Your task to perform on an android device: toggle pop-ups in chrome Image 0: 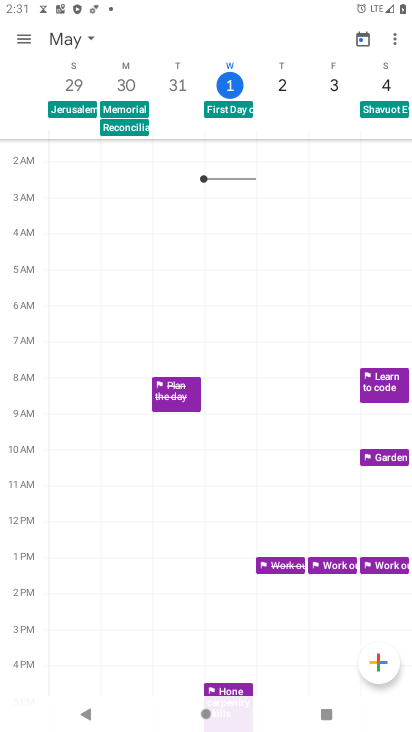
Step 0: press home button
Your task to perform on an android device: toggle pop-ups in chrome Image 1: 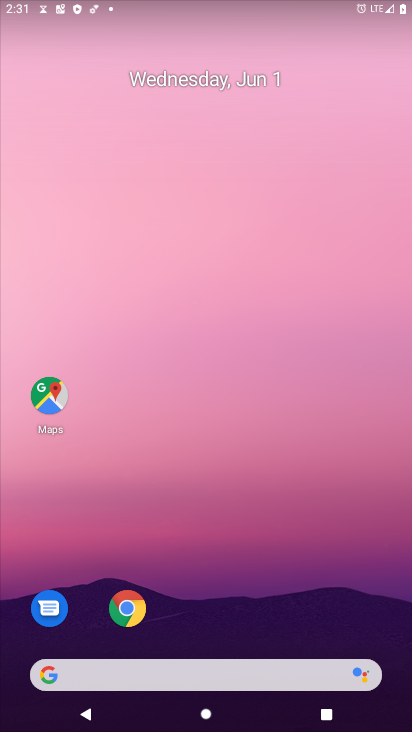
Step 1: click (121, 608)
Your task to perform on an android device: toggle pop-ups in chrome Image 2: 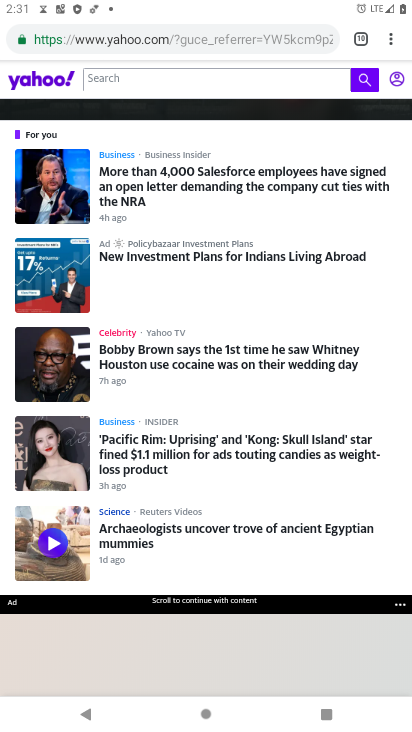
Step 2: click (391, 52)
Your task to perform on an android device: toggle pop-ups in chrome Image 3: 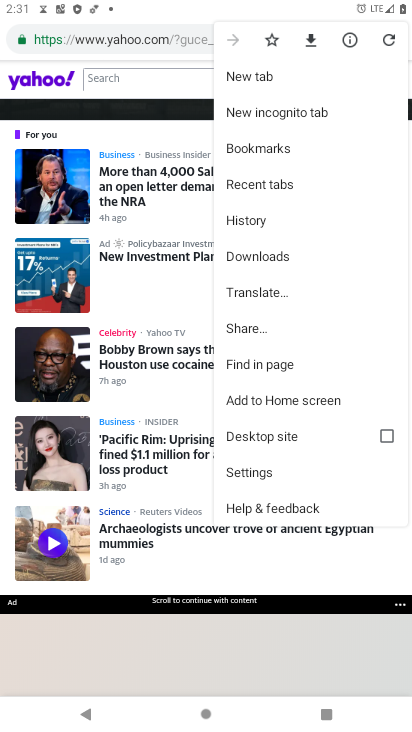
Step 3: click (296, 481)
Your task to perform on an android device: toggle pop-ups in chrome Image 4: 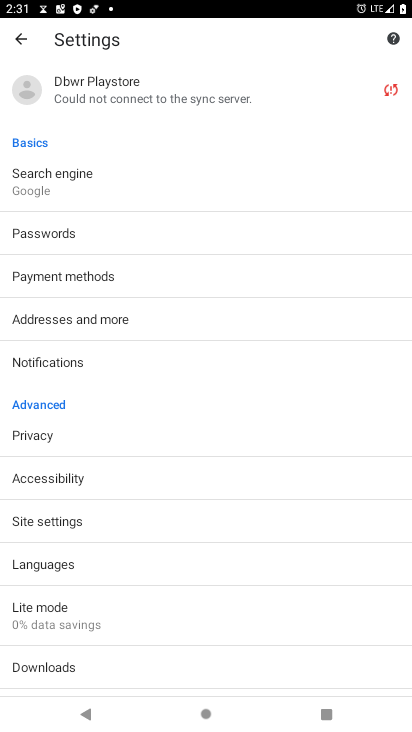
Step 4: click (68, 524)
Your task to perform on an android device: toggle pop-ups in chrome Image 5: 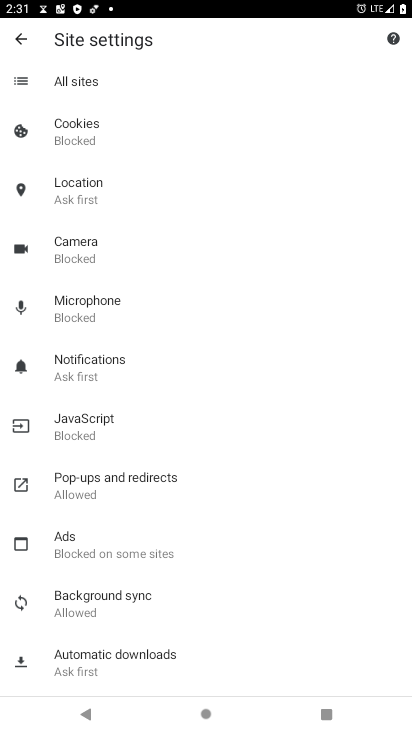
Step 5: click (114, 478)
Your task to perform on an android device: toggle pop-ups in chrome Image 6: 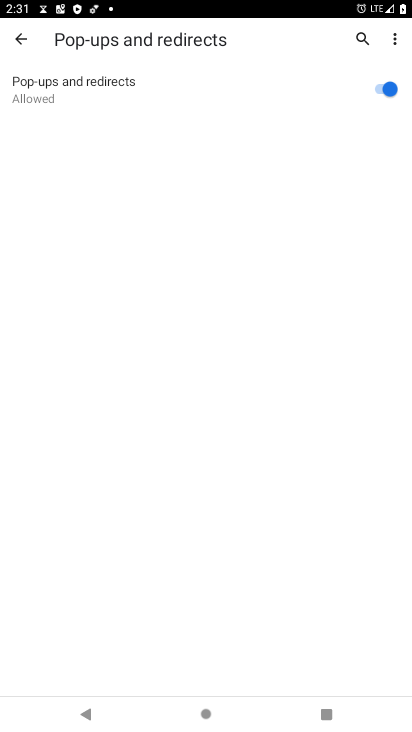
Step 6: click (333, 85)
Your task to perform on an android device: toggle pop-ups in chrome Image 7: 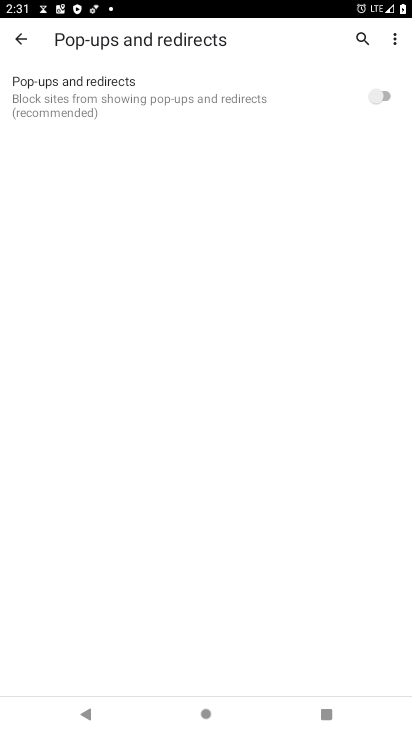
Step 7: task complete